Your task to perform on an android device: Go to sound settings Image 0: 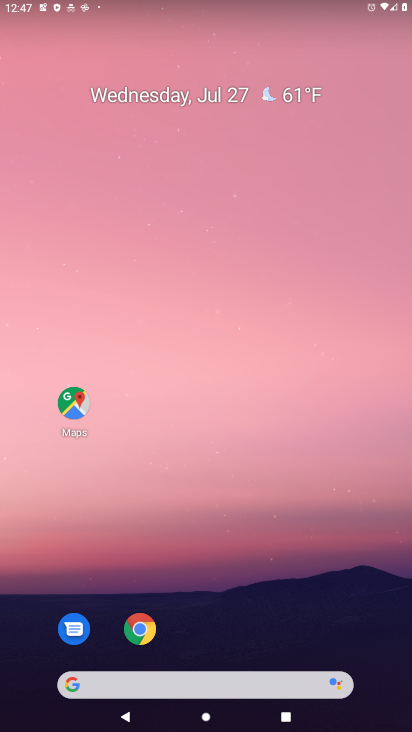
Step 0: drag from (223, 659) to (194, 158)
Your task to perform on an android device: Go to sound settings Image 1: 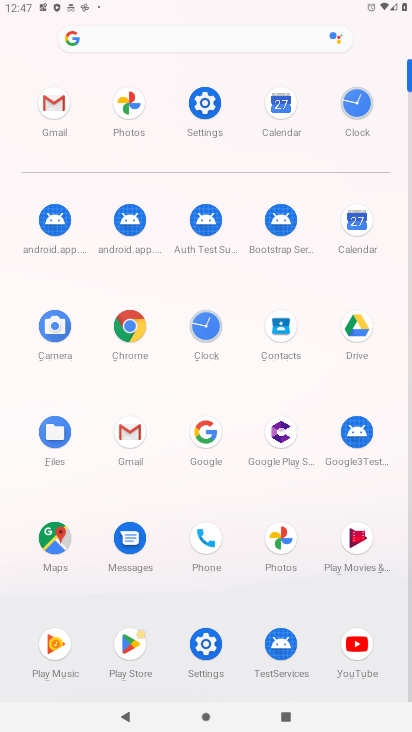
Step 1: click (179, 99)
Your task to perform on an android device: Go to sound settings Image 2: 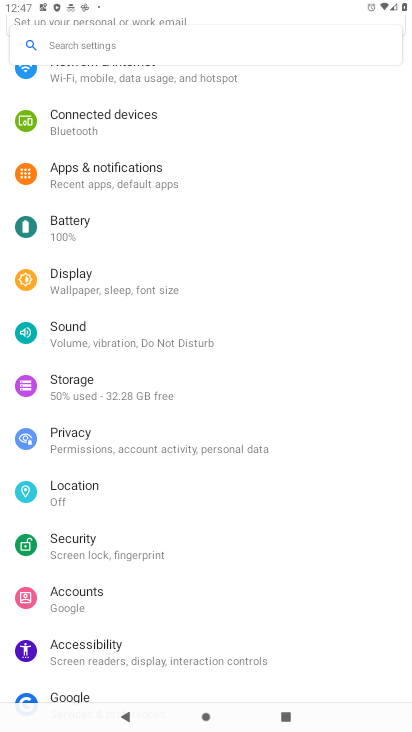
Step 2: click (160, 349)
Your task to perform on an android device: Go to sound settings Image 3: 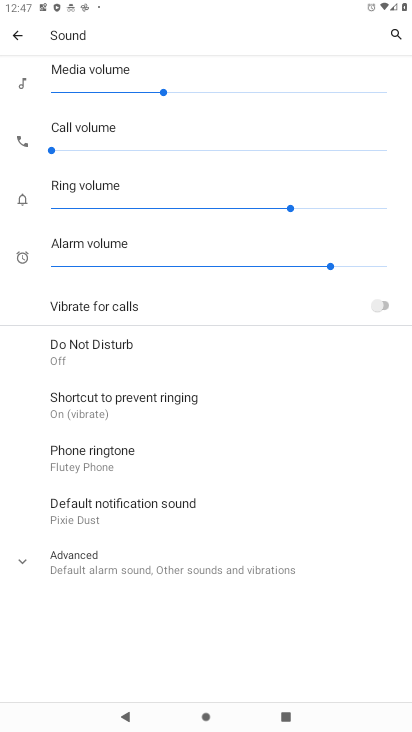
Step 3: task complete